Your task to perform on an android device: Go to Reddit.com Image 0: 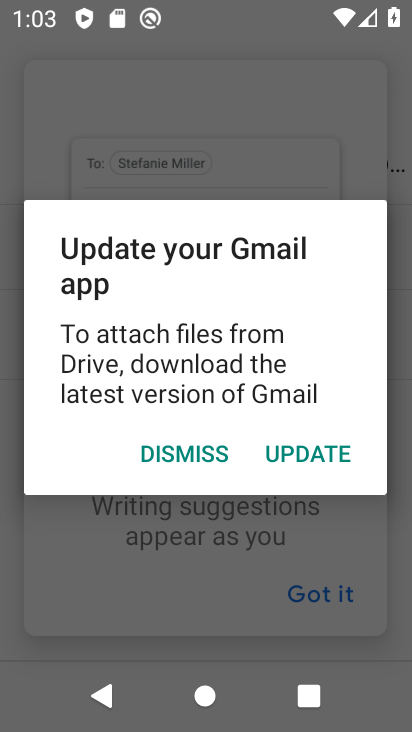
Step 0: press home button
Your task to perform on an android device: Go to Reddit.com Image 1: 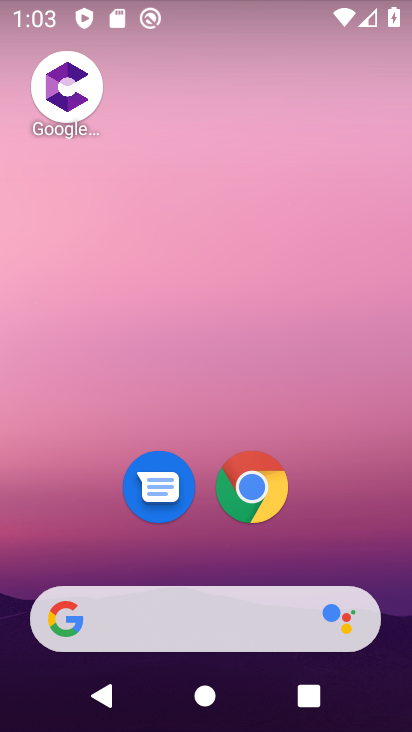
Step 1: click (241, 492)
Your task to perform on an android device: Go to Reddit.com Image 2: 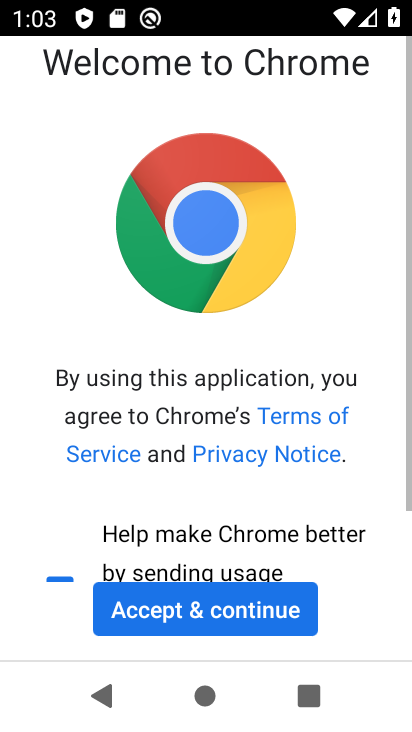
Step 2: click (169, 598)
Your task to perform on an android device: Go to Reddit.com Image 3: 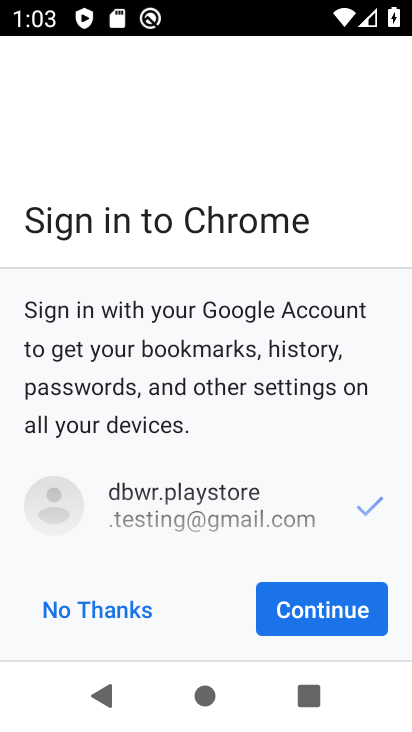
Step 3: click (303, 608)
Your task to perform on an android device: Go to Reddit.com Image 4: 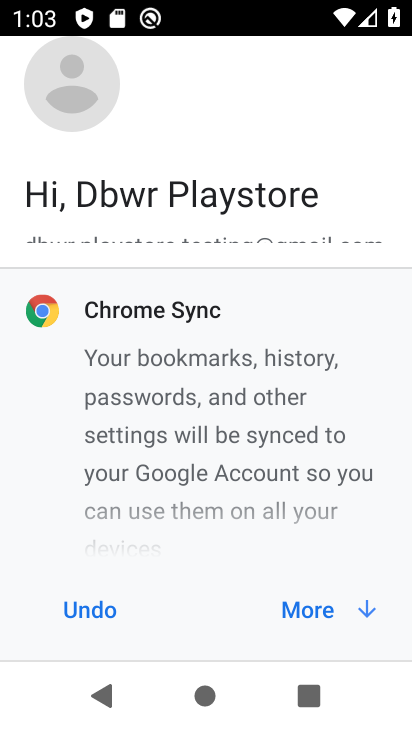
Step 4: click (300, 607)
Your task to perform on an android device: Go to Reddit.com Image 5: 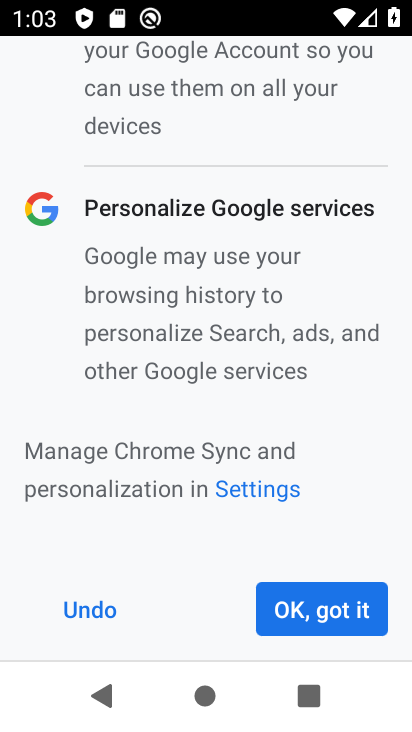
Step 5: click (334, 604)
Your task to perform on an android device: Go to Reddit.com Image 6: 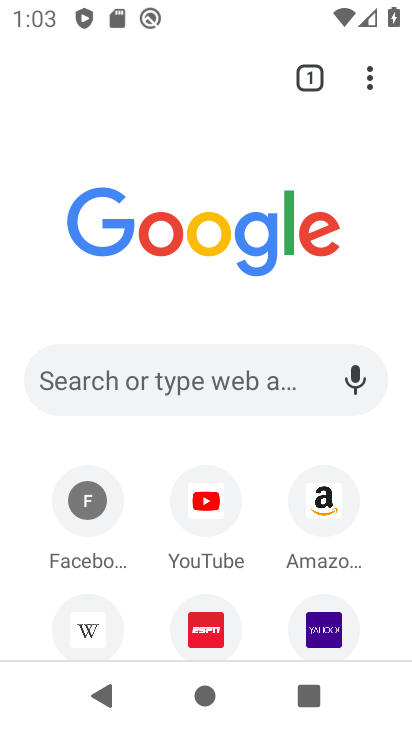
Step 6: click (177, 389)
Your task to perform on an android device: Go to Reddit.com Image 7: 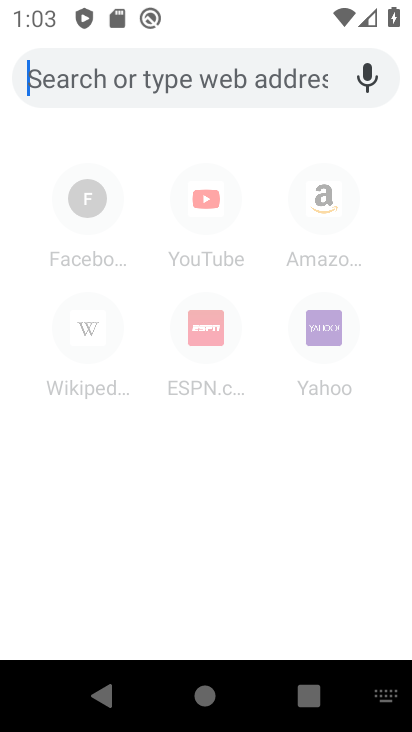
Step 7: type "reddit"
Your task to perform on an android device: Go to Reddit.com Image 8: 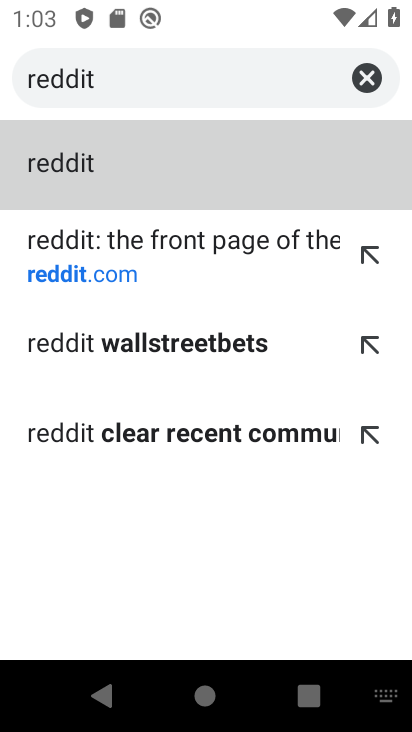
Step 8: click (98, 260)
Your task to perform on an android device: Go to Reddit.com Image 9: 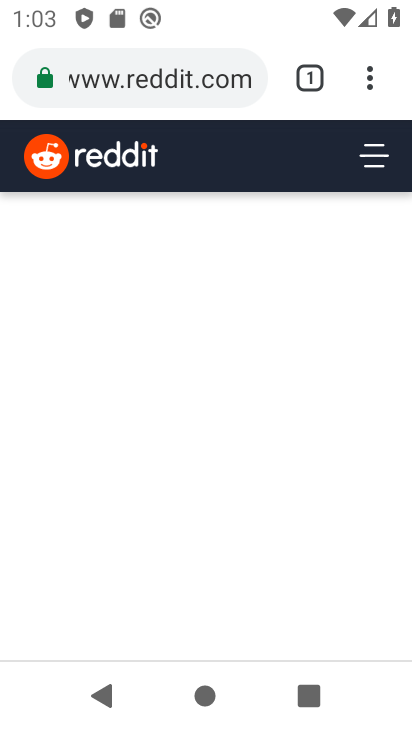
Step 9: task complete